Your task to perform on an android device: Go to Wikipedia Image 0: 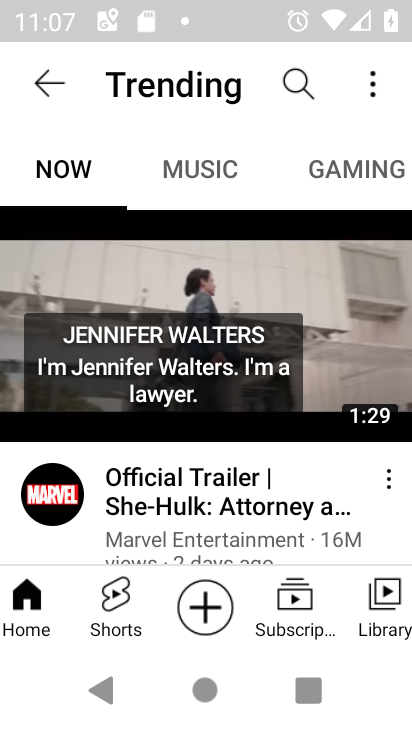
Step 0: press home button
Your task to perform on an android device: Go to Wikipedia Image 1: 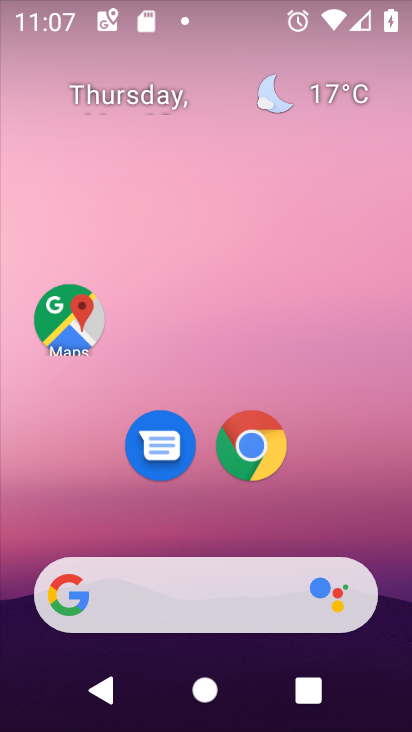
Step 1: drag from (191, 514) to (223, 237)
Your task to perform on an android device: Go to Wikipedia Image 2: 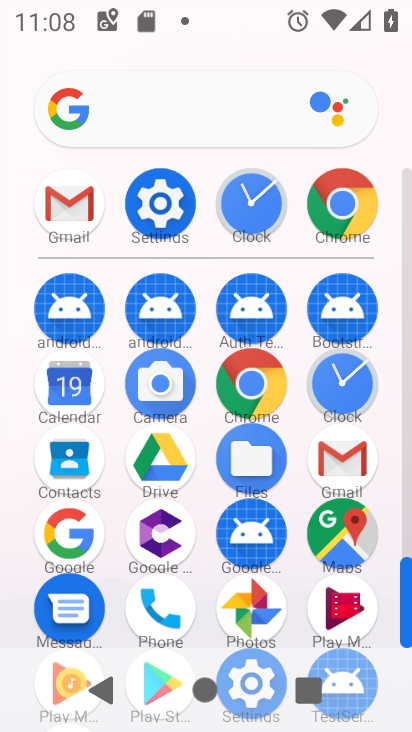
Step 2: click (238, 393)
Your task to perform on an android device: Go to Wikipedia Image 3: 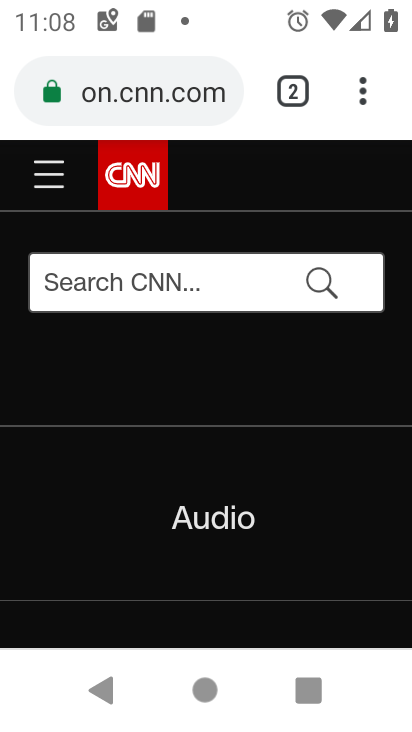
Step 3: click (363, 99)
Your task to perform on an android device: Go to Wikipedia Image 4: 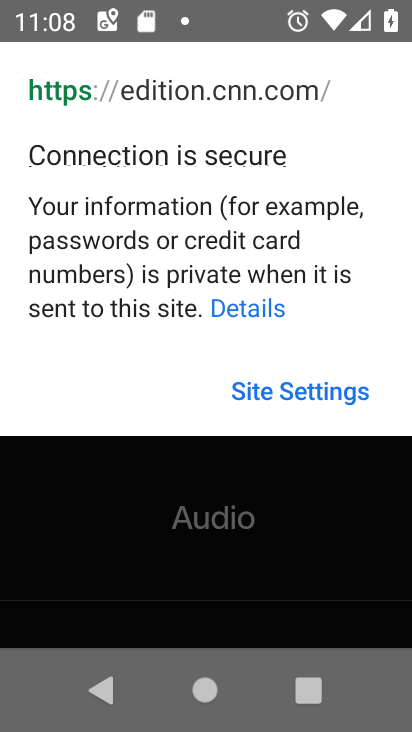
Step 4: click (329, 399)
Your task to perform on an android device: Go to Wikipedia Image 5: 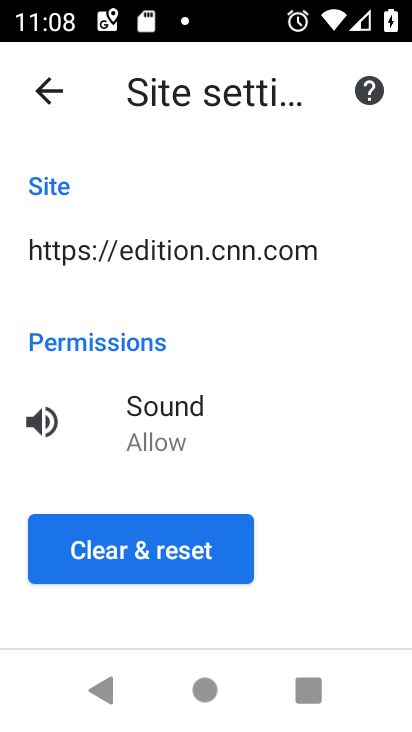
Step 5: click (118, 693)
Your task to perform on an android device: Go to Wikipedia Image 6: 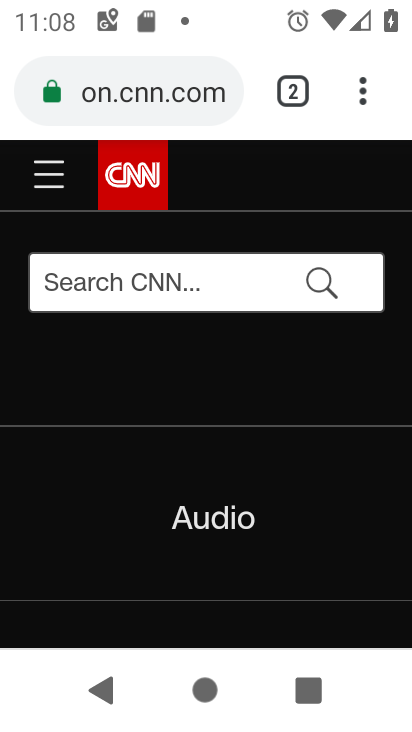
Step 6: click (282, 105)
Your task to perform on an android device: Go to Wikipedia Image 7: 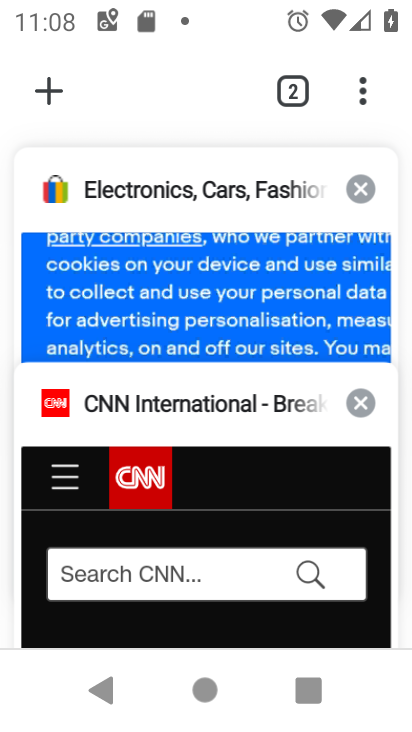
Step 7: click (57, 91)
Your task to perform on an android device: Go to Wikipedia Image 8: 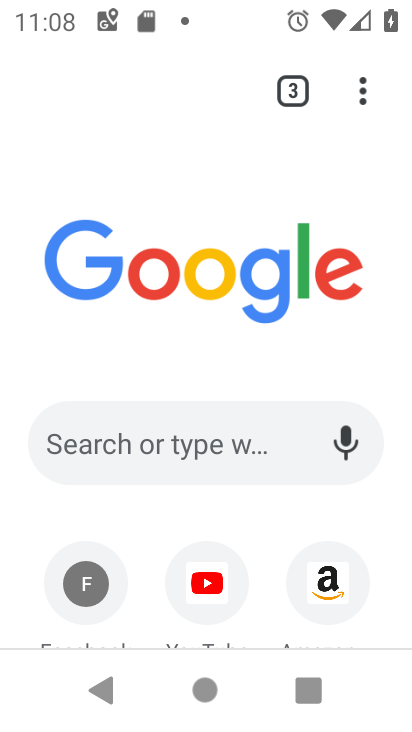
Step 8: drag from (181, 517) to (176, 256)
Your task to perform on an android device: Go to Wikipedia Image 9: 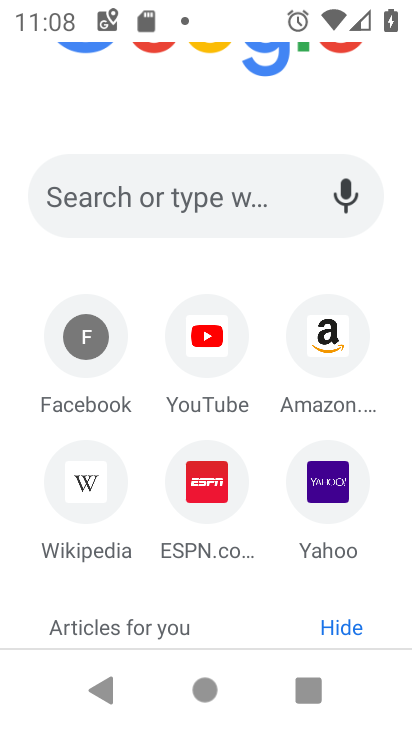
Step 9: click (86, 486)
Your task to perform on an android device: Go to Wikipedia Image 10: 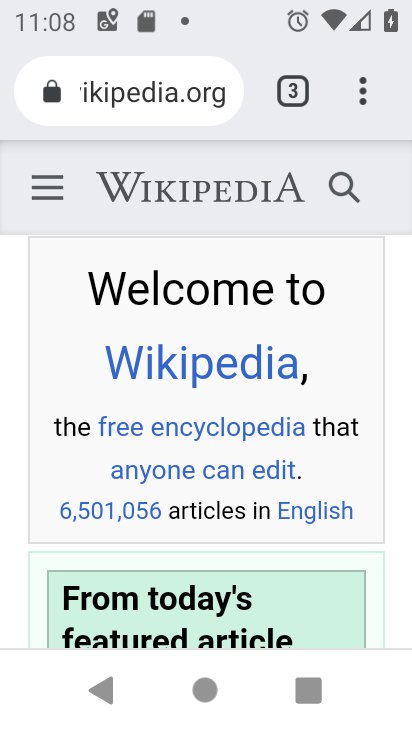
Step 10: task complete